Your task to perform on an android device: empty trash in google photos Image 0: 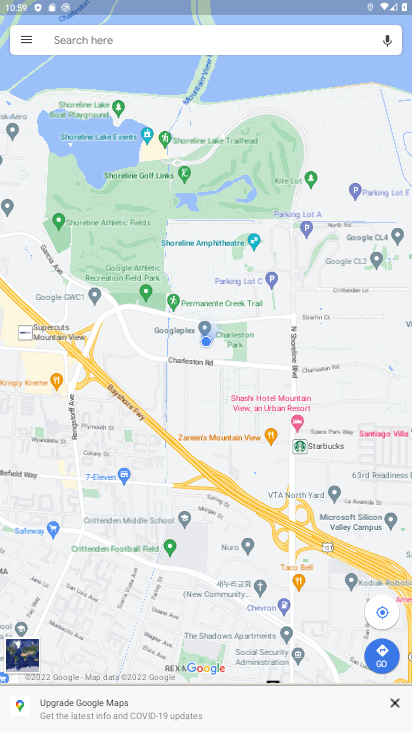
Step 0: press home button
Your task to perform on an android device: empty trash in google photos Image 1: 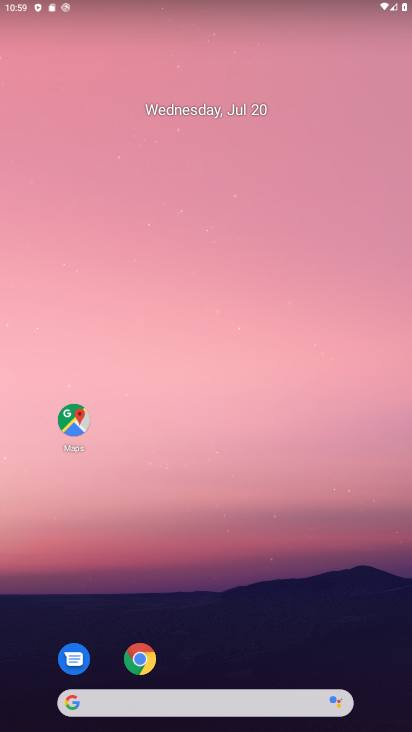
Step 1: drag from (197, 667) to (284, 114)
Your task to perform on an android device: empty trash in google photos Image 2: 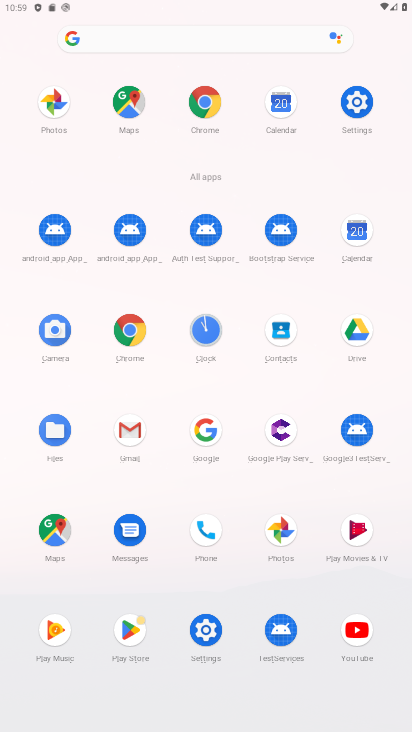
Step 2: click (286, 540)
Your task to perform on an android device: empty trash in google photos Image 3: 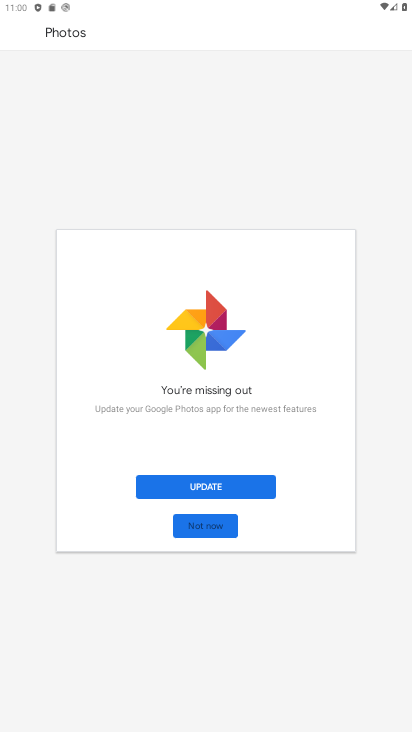
Step 3: click (231, 537)
Your task to perform on an android device: empty trash in google photos Image 4: 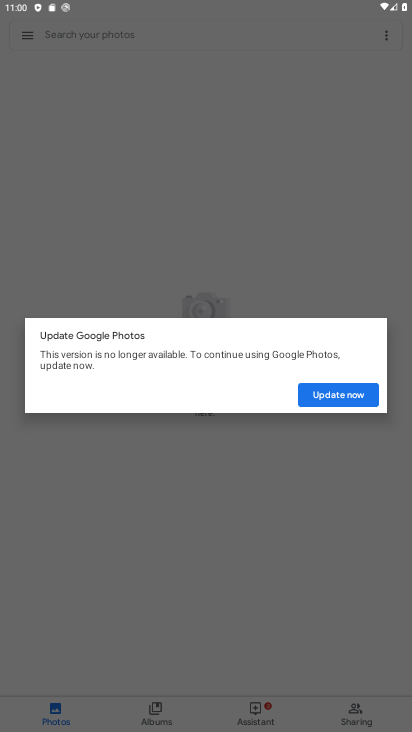
Step 4: click (337, 392)
Your task to perform on an android device: empty trash in google photos Image 5: 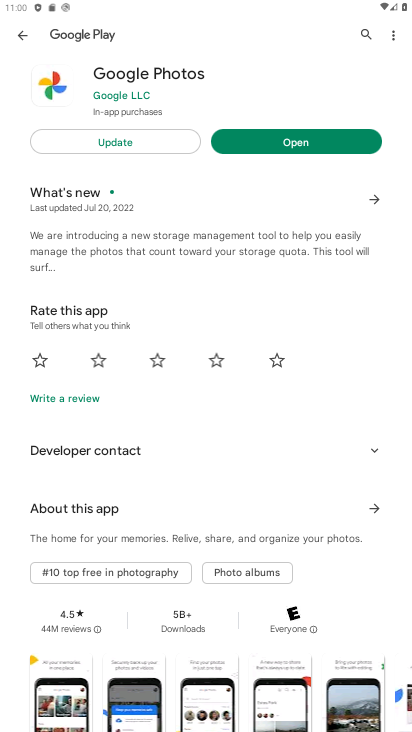
Step 5: click (281, 140)
Your task to perform on an android device: empty trash in google photos Image 6: 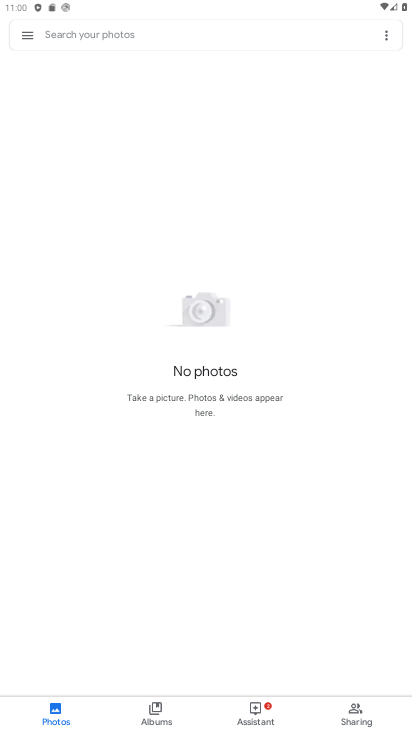
Step 6: click (31, 40)
Your task to perform on an android device: empty trash in google photos Image 7: 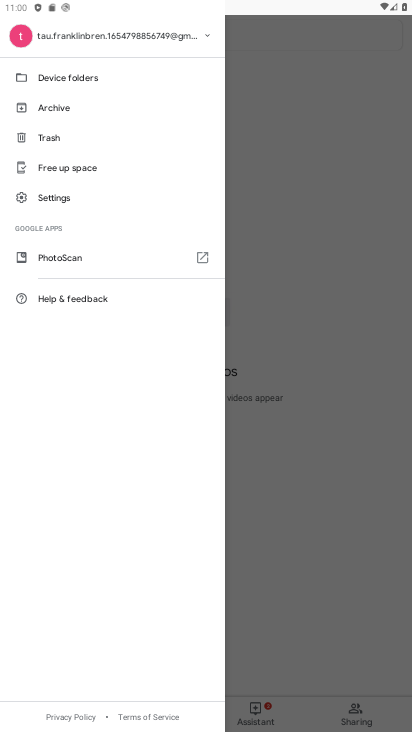
Step 7: click (50, 136)
Your task to perform on an android device: empty trash in google photos Image 8: 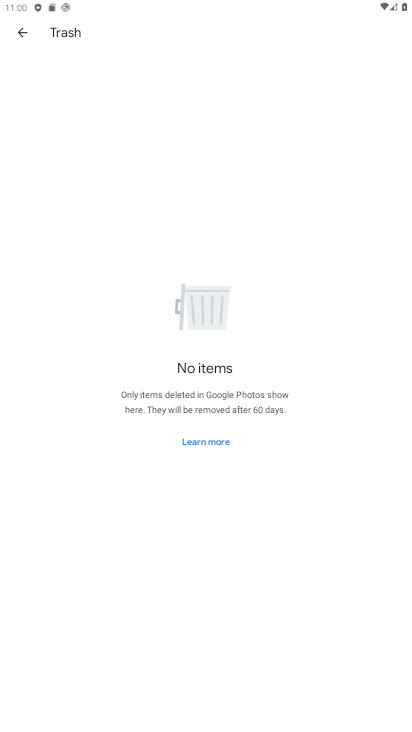
Step 8: task complete